Your task to perform on an android device: turn on the 24-hour format for clock Image 0: 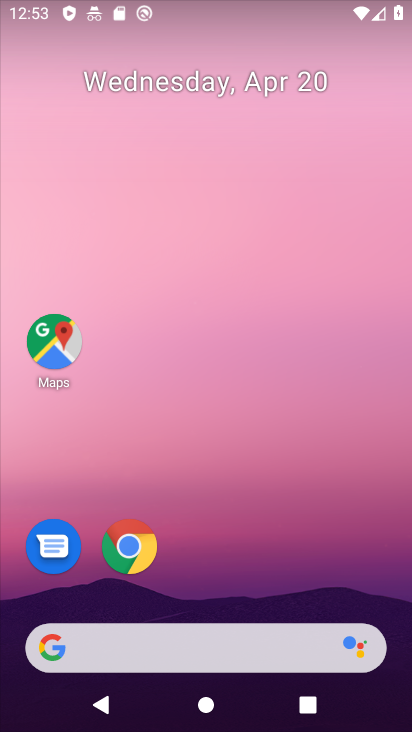
Step 0: drag from (273, 687) to (396, 143)
Your task to perform on an android device: turn on the 24-hour format for clock Image 1: 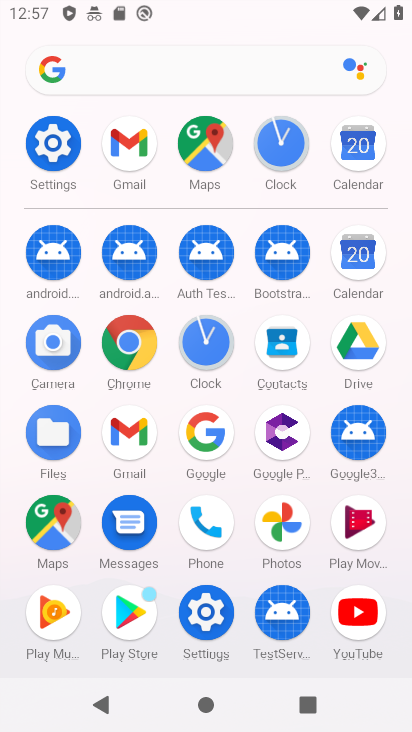
Step 1: click (295, 149)
Your task to perform on an android device: turn on the 24-hour format for clock Image 2: 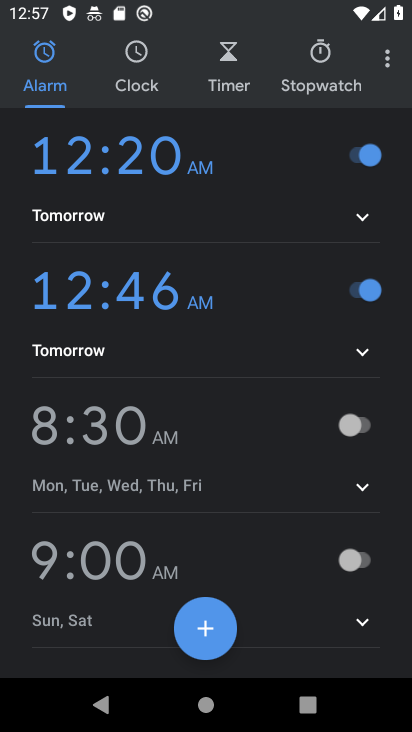
Step 2: click (384, 61)
Your task to perform on an android device: turn on the 24-hour format for clock Image 3: 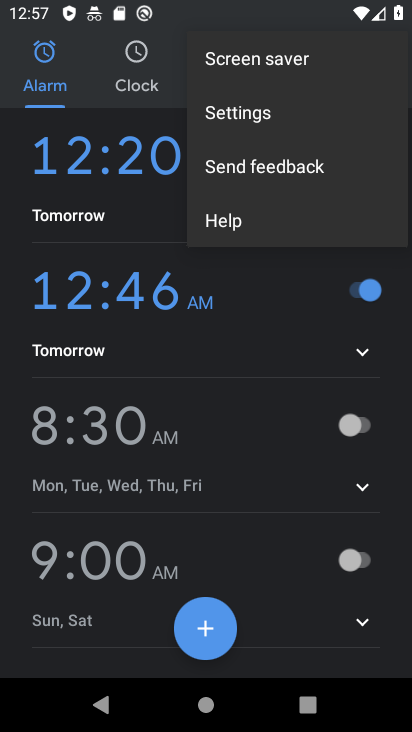
Step 3: click (236, 114)
Your task to perform on an android device: turn on the 24-hour format for clock Image 4: 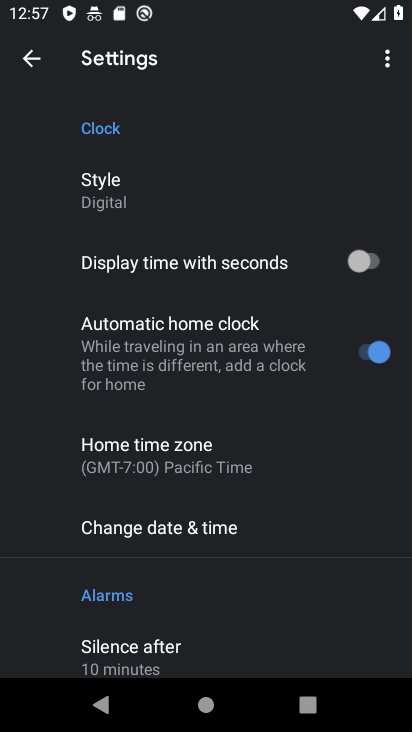
Step 4: click (263, 544)
Your task to perform on an android device: turn on the 24-hour format for clock Image 5: 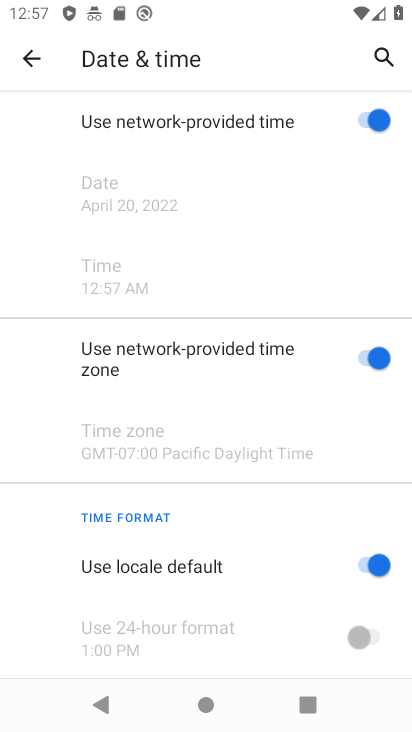
Step 5: click (386, 558)
Your task to perform on an android device: turn on the 24-hour format for clock Image 6: 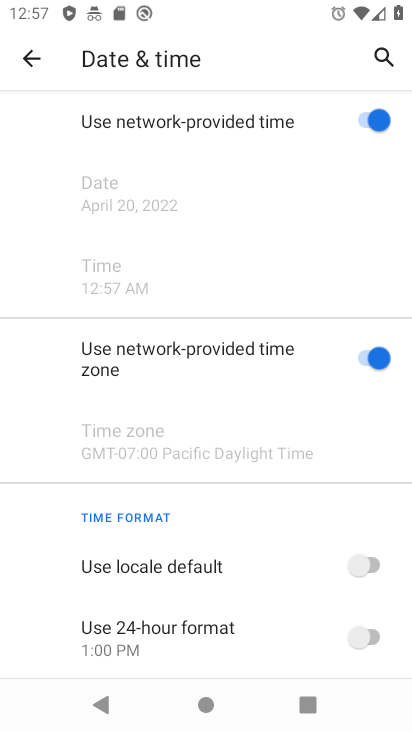
Step 6: click (374, 639)
Your task to perform on an android device: turn on the 24-hour format for clock Image 7: 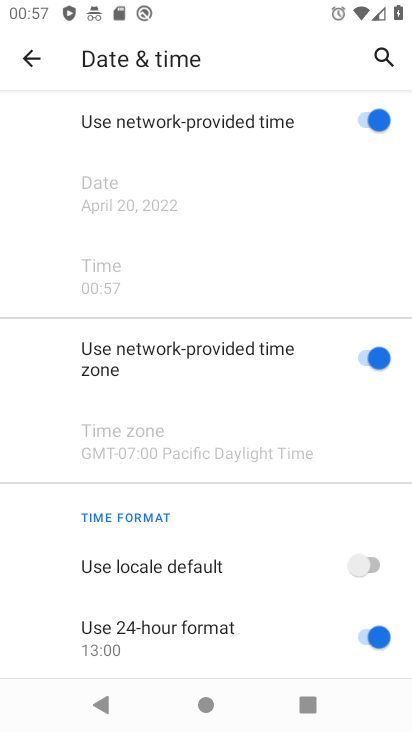
Step 7: task complete